Your task to perform on an android device: check out phone information Image 0: 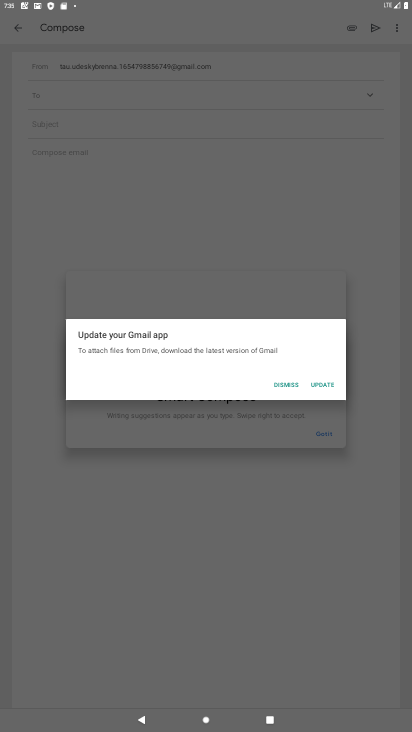
Step 0: press home button
Your task to perform on an android device: check out phone information Image 1: 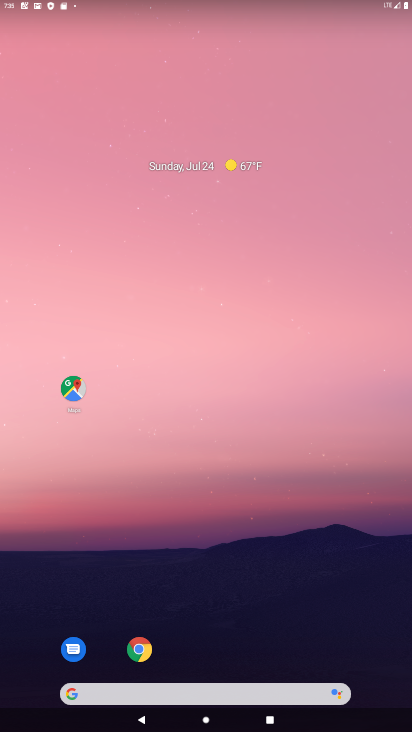
Step 1: drag from (214, 676) to (155, 239)
Your task to perform on an android device: check out phone information Image 2: 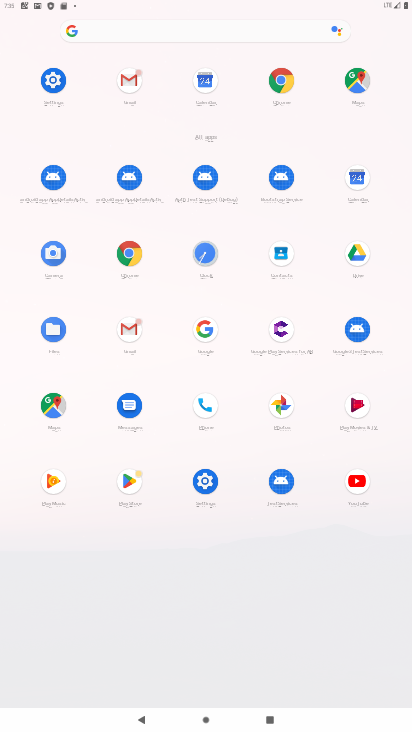
Step 2: click (55, 95)
Your task to perform on an android device: check out phone information Image 3: 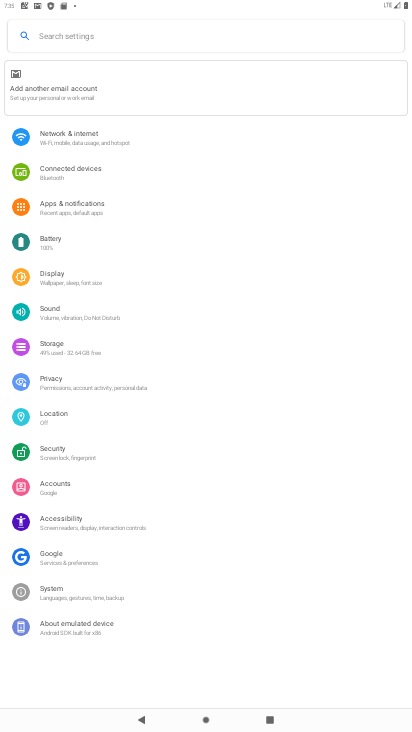
Step 3: click (48, 616)
Your task to perform on an android device: check out phone information Image 4: 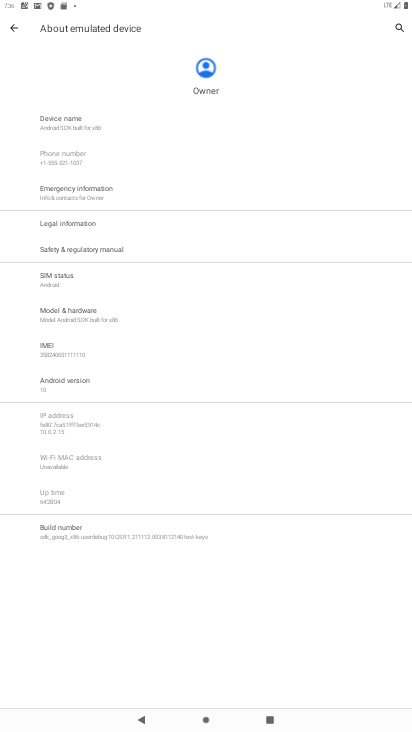
Step 4: task complete